Your task to perform on an android device: change text size in settings app Image 0: 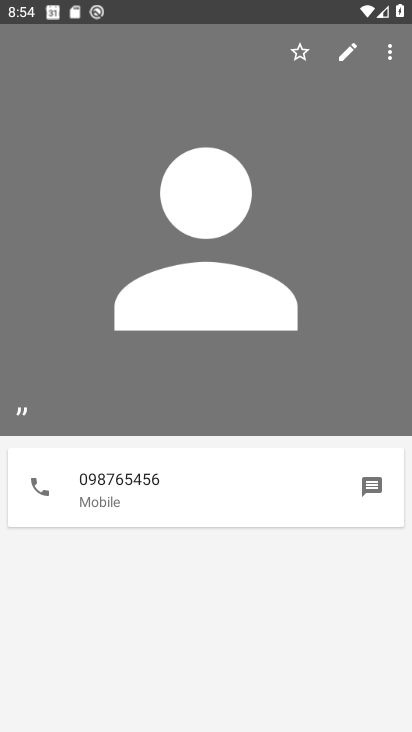
Step 0: drag from (212, 671) to (253, 349)
Your task to perform on an android device: change text size in settings app Image 1: 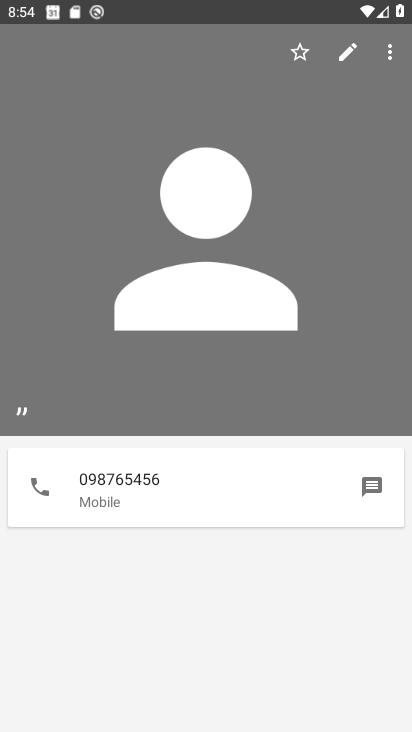
Step 1: press home button
Your task to perform on an android device: change text size in settings app Image 2: 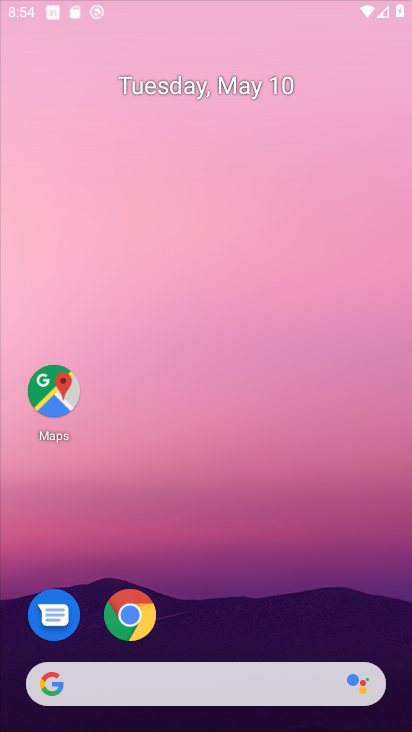
Step 2: drag from (186, 572) to (225, 297)
Your task to perform on an android device: change text size in settings app Image 3: 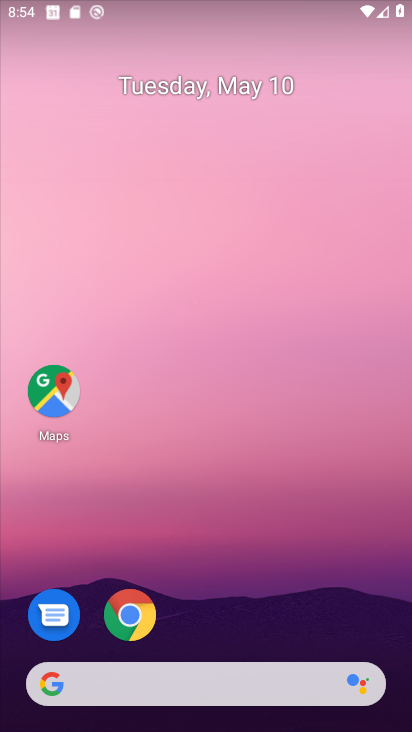
Step 3: drag from (206, 620) to (227, 286)
Your task to perform on an android device: change text size in settings app Image 4: 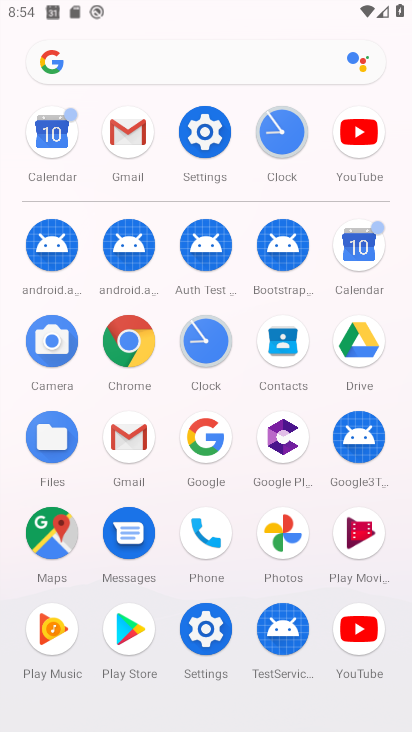
Step 4: click (200, 125)
Your task to perform on an android device: change text size in settings app Image 5: 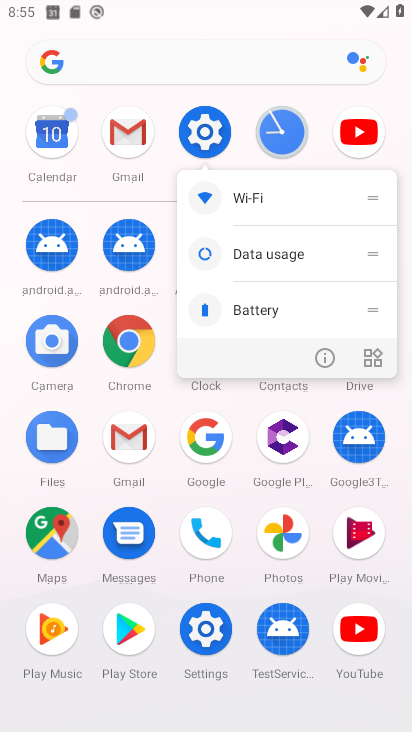
Step 5: click (328, 355)
Your task to perform on an android device: change text size in settings app Image 6: 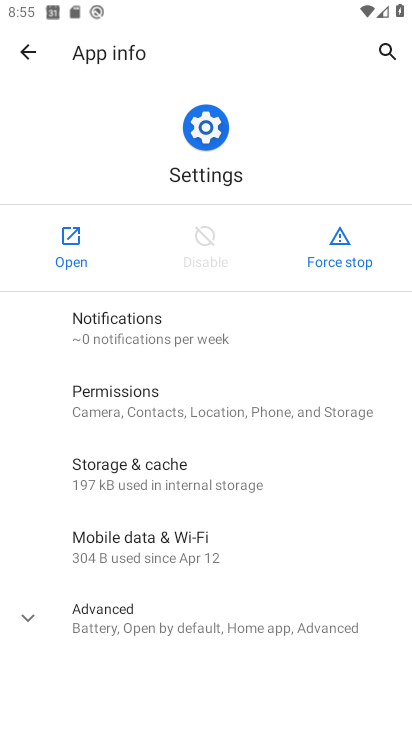
Step 6: click (95, 234)
Your task to perform on an android device: change text size in settings app Image 7: 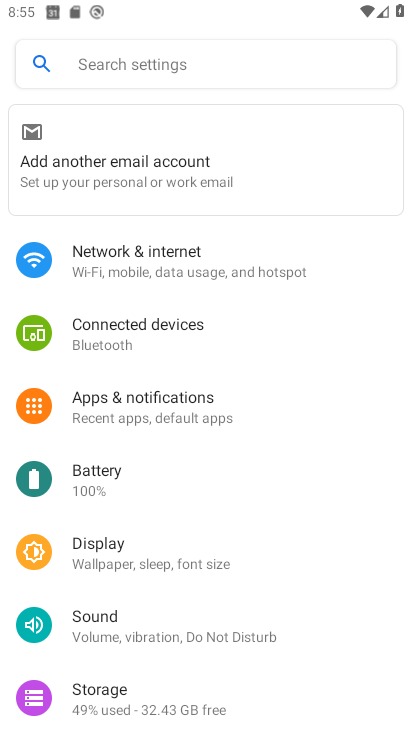
Step 7: click (131, 555)
Your task to perform on an android device: change text size in settings app Image 8: 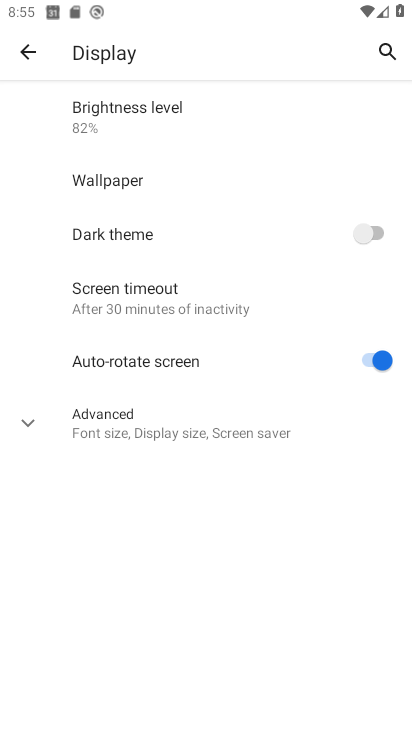
Step 8: click (153, 408)
Your task to perform on an android device: change text size in settings app Image 9: 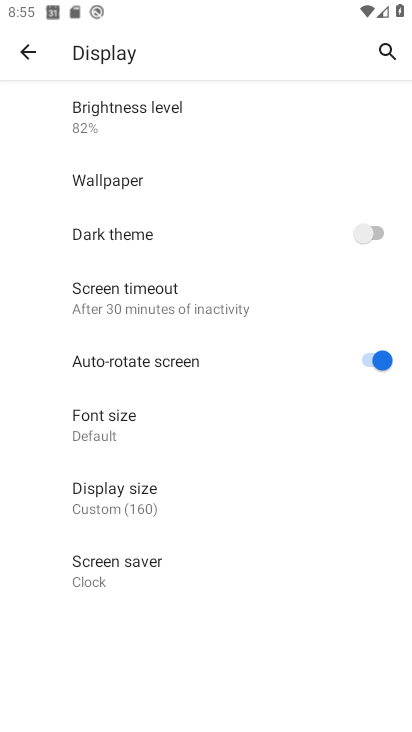
Step 9: click (110, 404)
Your task to perform on an android device: change text size in settings app Image 10: 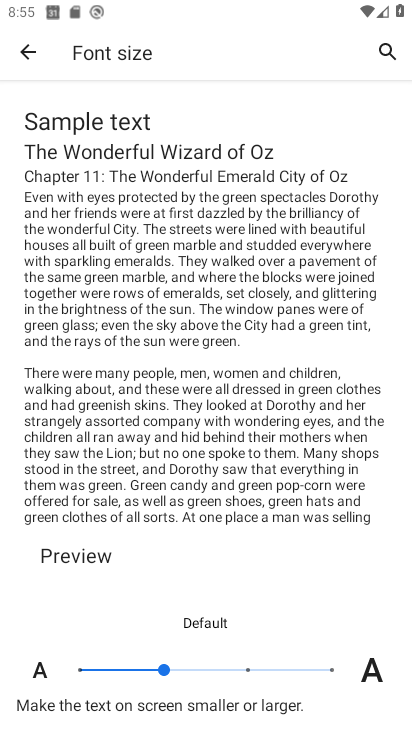
Step 10: click (103, 639)
Your task to perform on an android device: change text size in settings app Image 11: 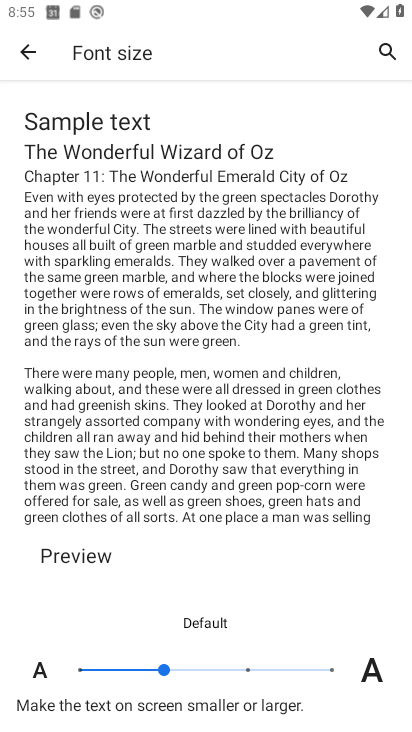
Step 11: click (90, 669)
Your task to perform on an android device: change text size in settings app Image 12: 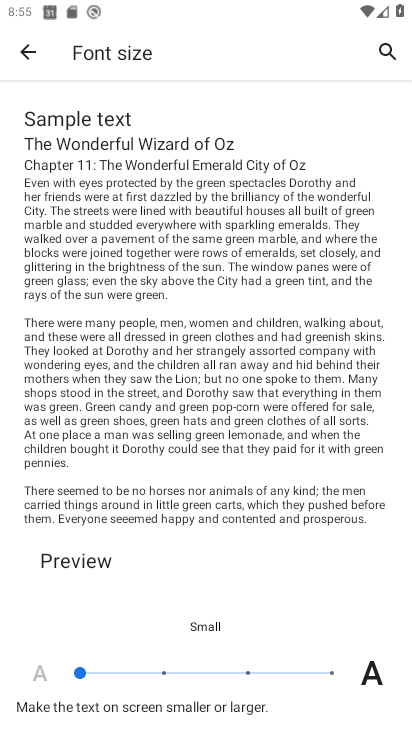
Step 12: task complete